Your task to perform on an android device: change timer sound Image 0: 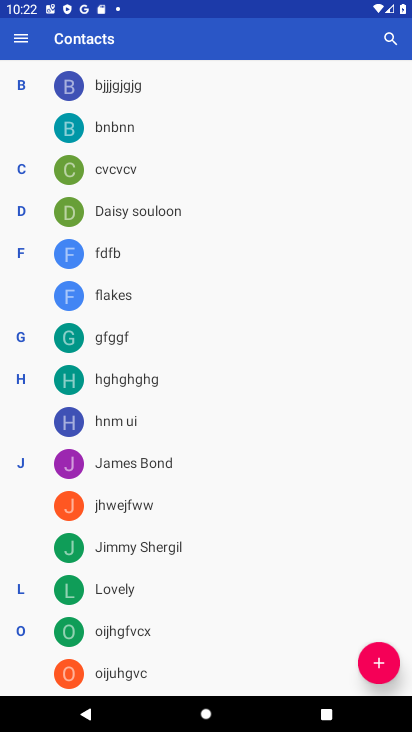
Step 0: press home button
Your task to perform on an android device: change timer sound Image 1: 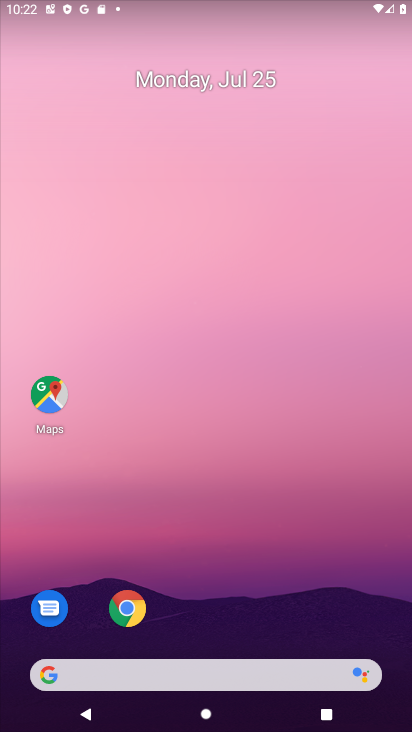
Step 1: drag from (231, 627) to (279, 85)
Your task to perform on an android device: change timer sound Image 2: 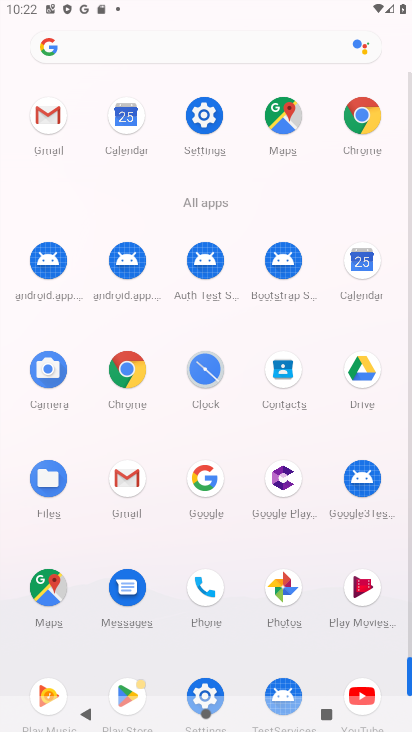
Step 2: click (208, 360)
Your task to perform on an android device: change timer sound Image 3: 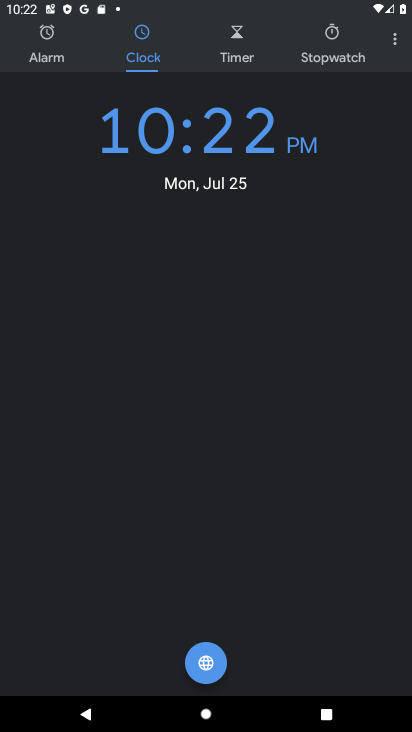
Step 3: click (398, 30)
Your task to perform on an android device: change timer sound Image 4: 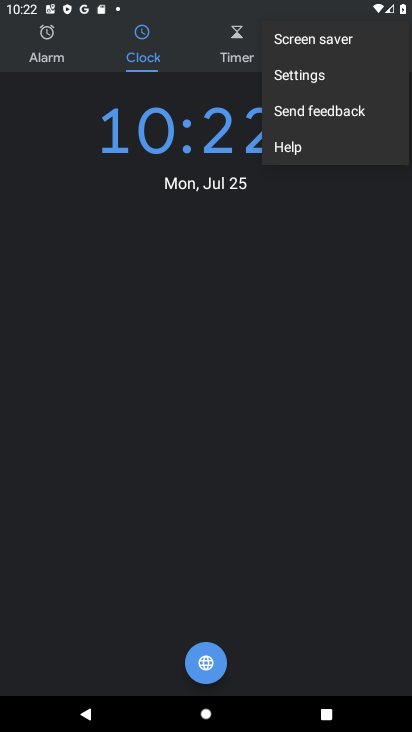
Step 4: click (326, 77)
Your task to perform on an android device: change timer sound Image 5: 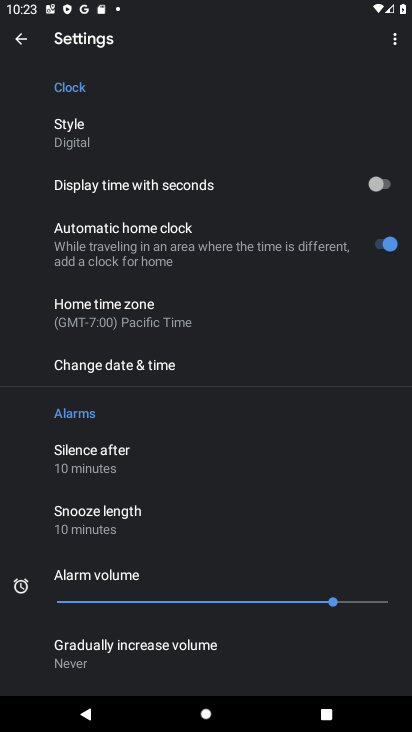
Step 5: drag from (151, 475) to (170, 200)
Your task to perform on an android device: change timer sound Image 6: 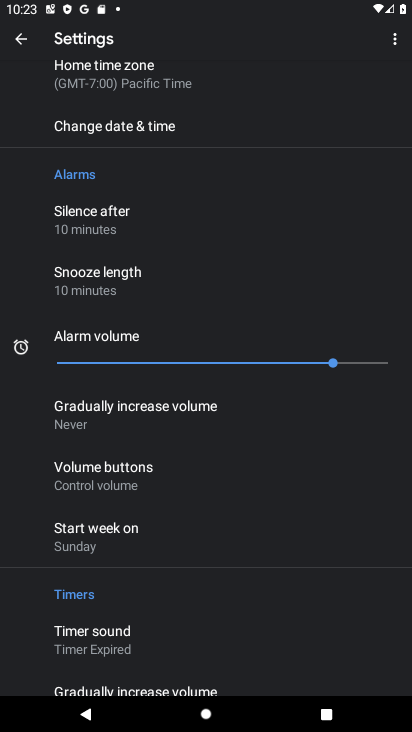
Step 6: click (123, 630)
Your task to perform on an android device: change timer sound Image 7: 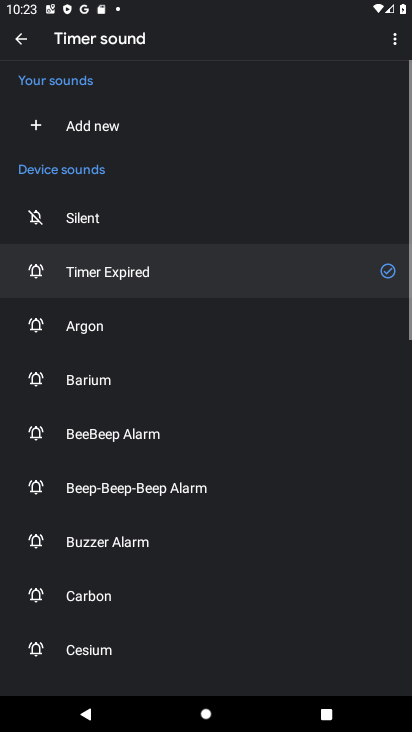
Step 7: click (96, 492)
Your task to perform on an android device: change timer sound Image 8: 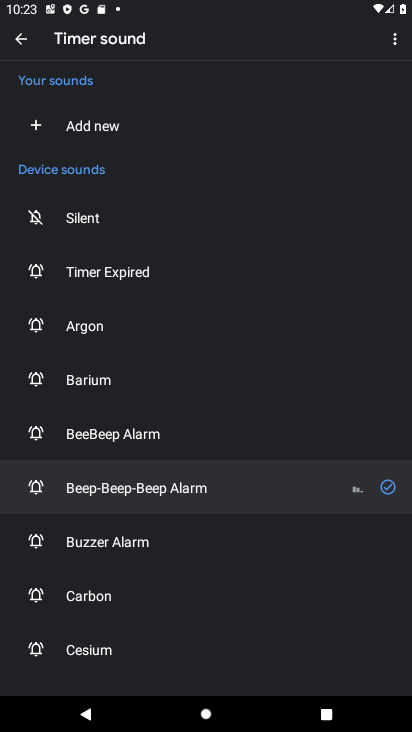
Step 8: task complete